Your task to perform on an android device: What's on my calendar today? Image 0: 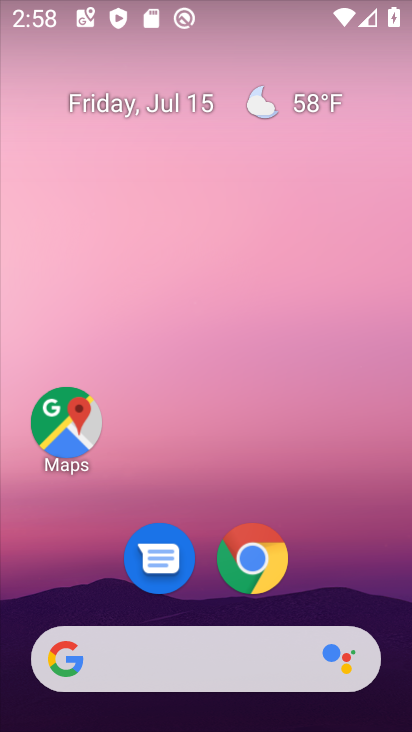
Step 0: drag from (368, 573) to (364, 128)
Your task to perform on an android device: What's on my calendar today? Image 1: 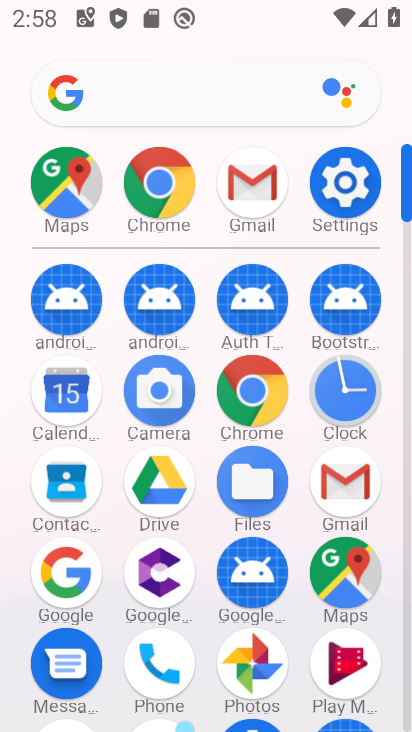
Step 1: click (77, 402)
Your task to perform on an android device: What's on my calendar today? Image 2: 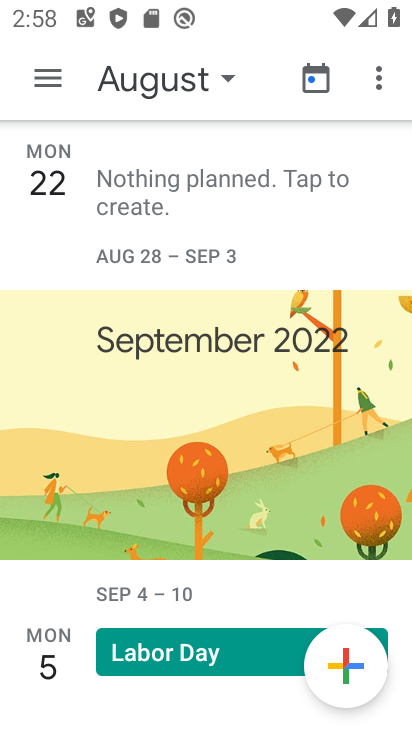
Step 2: drag from (186, 303) to (209, 484)
Your task to perform on an android device: What's on my calendar today? Image 3: 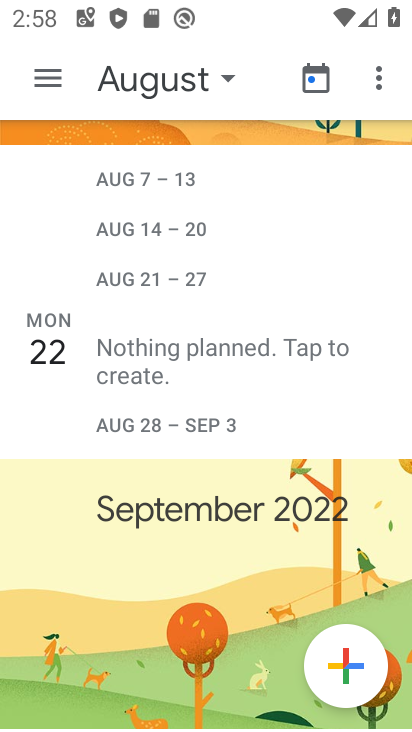
Step 3: drag from (232, 270) to (231, 507)
Your task to perform on an android device: What's on my calendar today? Image 4: 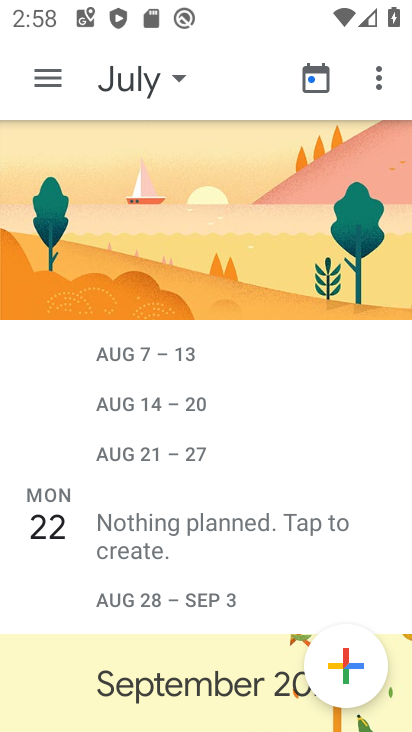
Step 4: drag from (209, 216) to (221, 498)
Your task to perform on an android device: What's on my calendar today? Image 5: 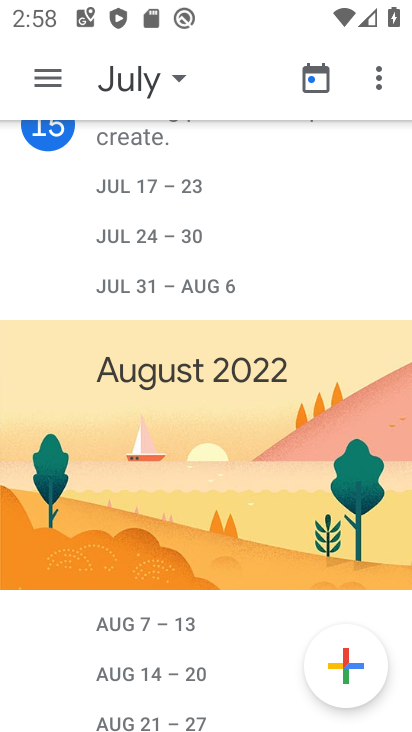
Step 5: click (183, 78)
Your task to perform on an android device: What's on my calendar today? Image 6: 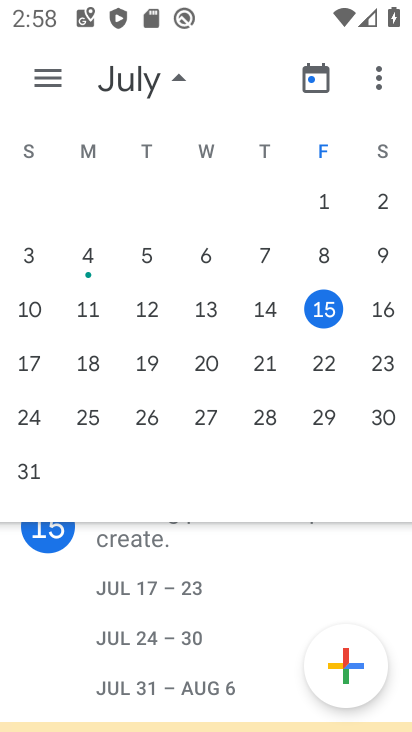
Step 6: click (332, 301)
Your task to perform on an android device: What's on my calendar today? Image 7: 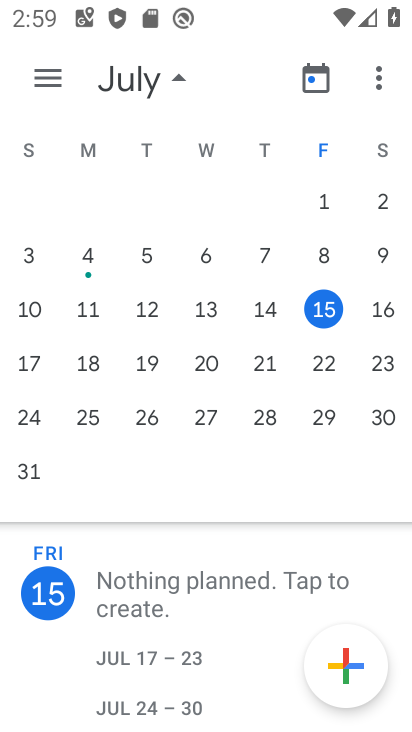
Step 7: task complete